Your task to perform on an android device: turn on showing notifications on the lock screen Image 0: 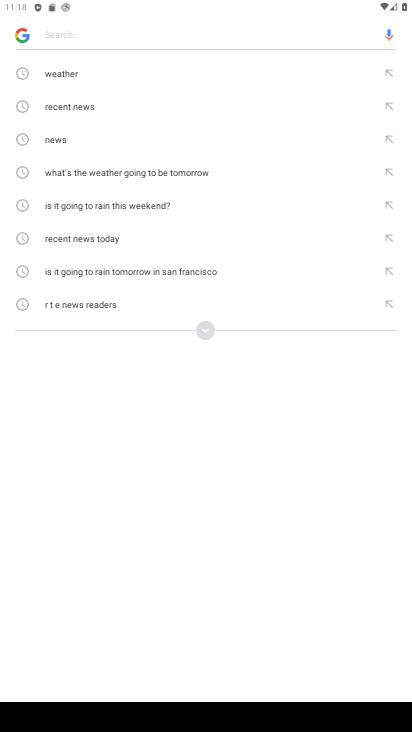
Step 0: press home button
Your task to perform on an android device: turn on showing notifications on the lock screen Image 1: 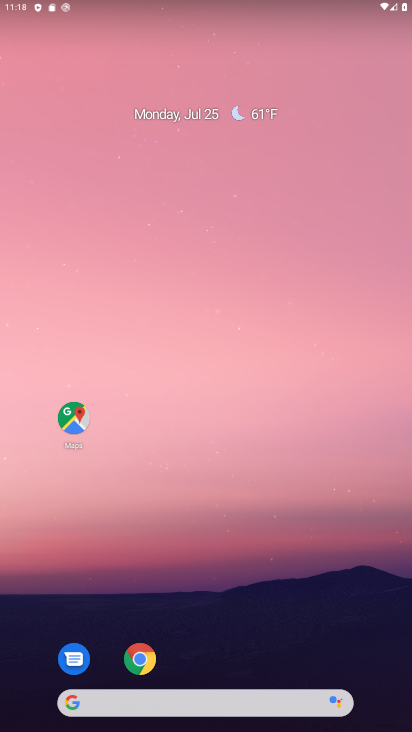
Step 1: drag from (197, 670) to (267, 142)
Your task to perform on an android device: turn on showing notifications on the lock screen Image 2: 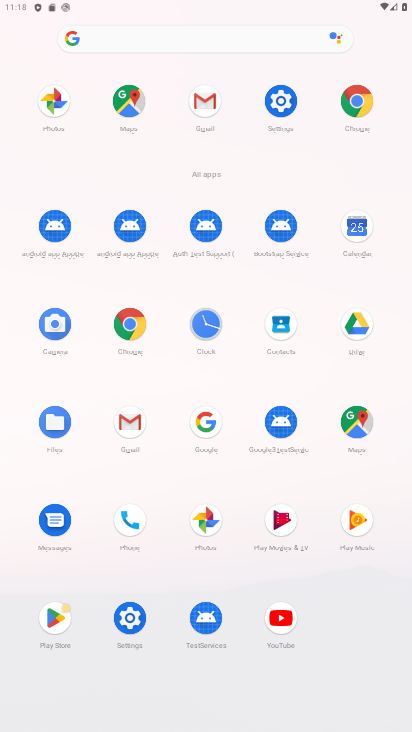
Step 2: click (276, 108)
Your task to perform on an android device: turn on showing notifications on the lock screen Image 3: 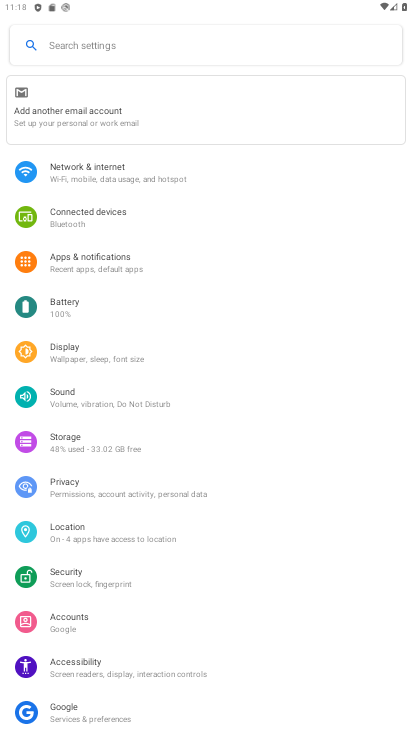
Step 3: click (110, 253)
Your task to perform on an android device: turn on showing notifications on the lock screen Image 4: 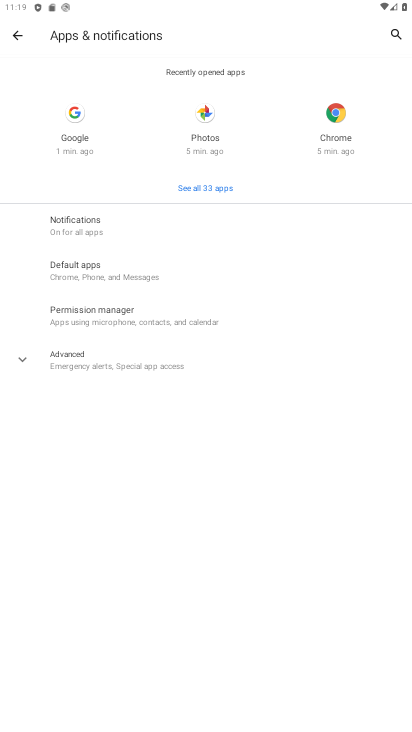
Step 4: click (84, 224)
Your task to perform on an android device: turn on showing notifications on the lock screen Image 5: 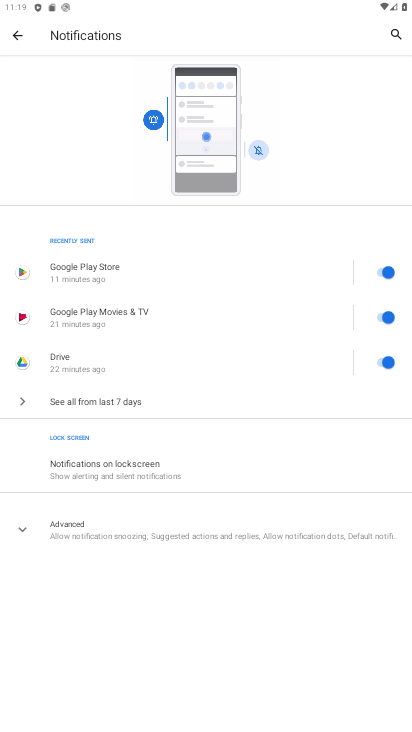
Step 5: task complete